Your task to perform on an android device: clear all cookies in the chrome app Image 0: 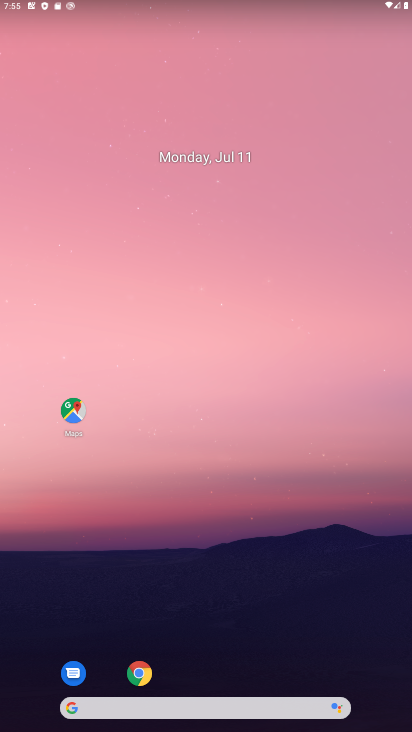
Step 0: press home button
Your task to perform on an android device: clear all cookies in the chrome app Image 1: 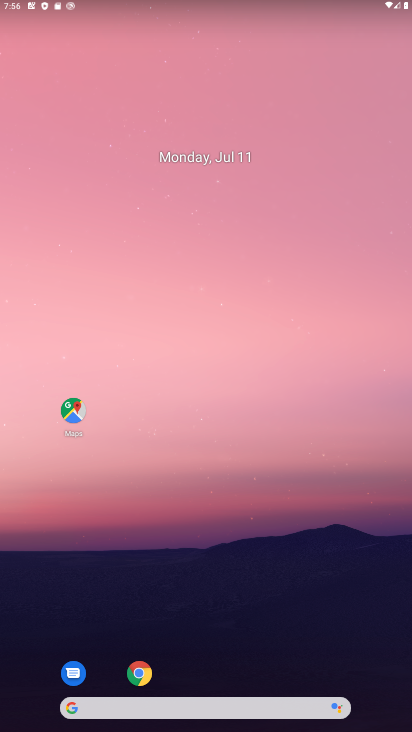
Step 1: click (138, 670)
Your task to perform on an android device: clear all cookies in the chrome app Image 2: 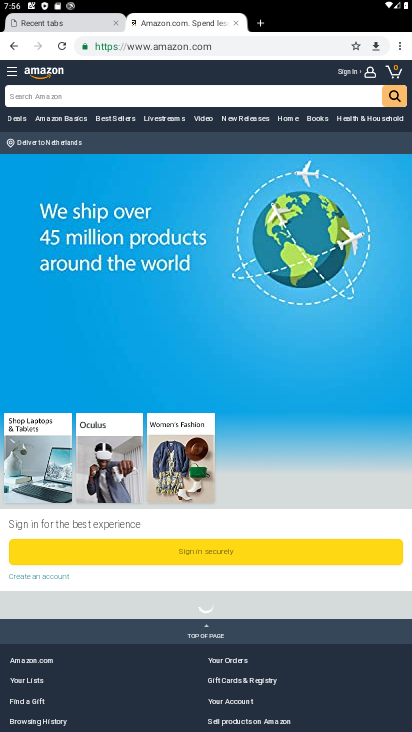
Step 2: click (398, 45)
Your task to perform on an android device: clear all cookies in the chrome app Image 3: 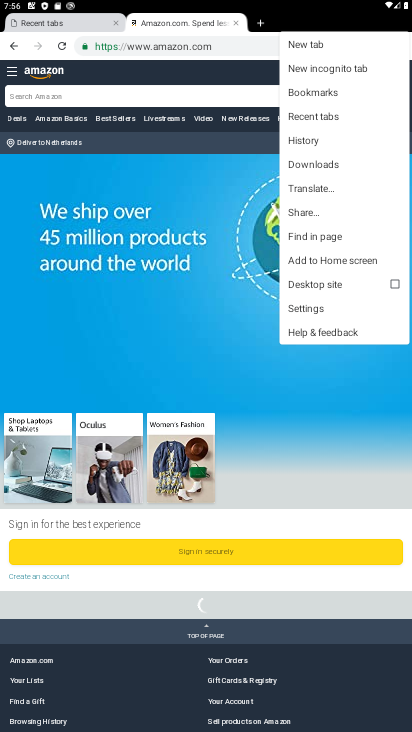
Step 3: click (327, 141)
Your task to perform on an android device: clear all cookies in the chrome app Image 4: 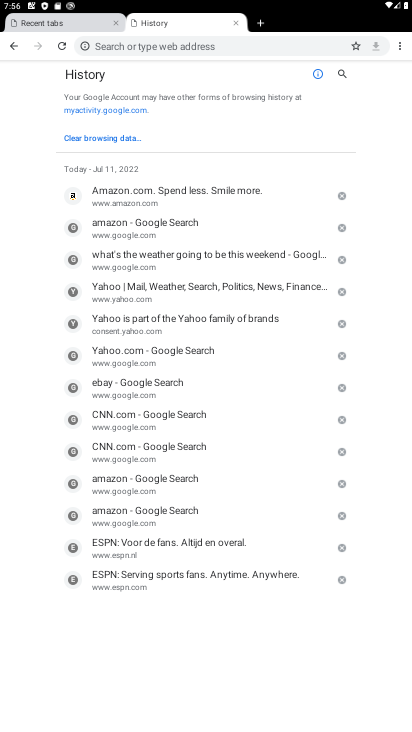
Step 4: click (107, 137)
Your task to perform on an android device: clear all cookies in the chrome app Image 5: 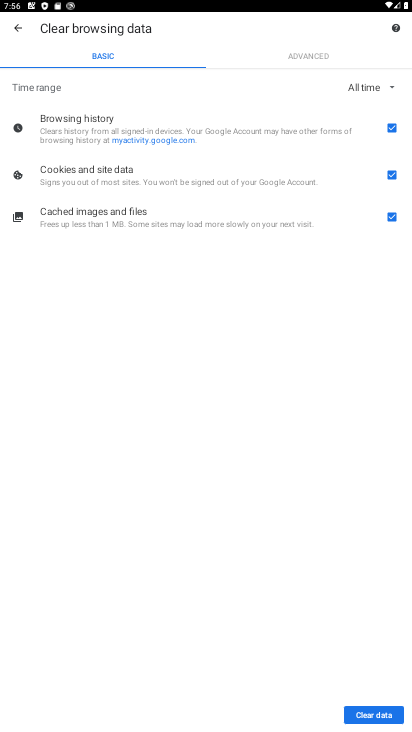
Step 5: click (392, 125)
Your task to perform on an android device: clear all cookies in the chrome app Image 6: 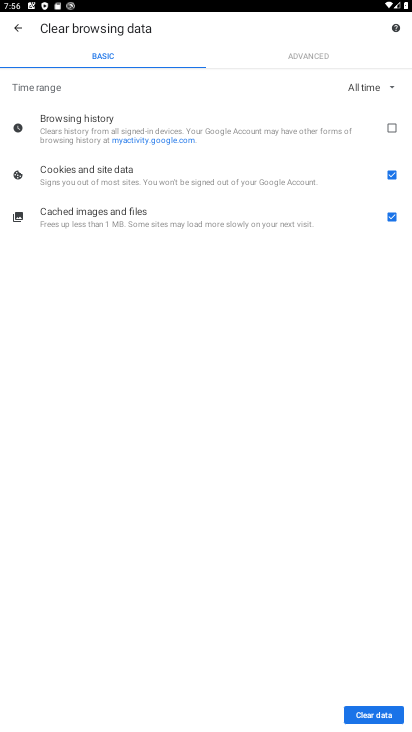
Step 6: click (389, 211)
Your task to perform on an android device: clear all cookies in the chrome app Image 7: 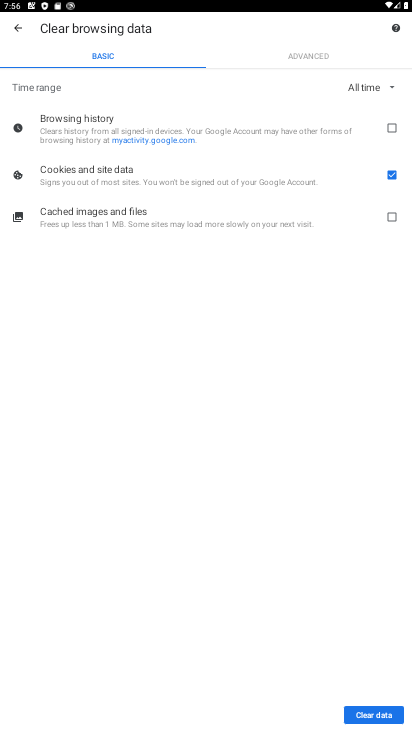
Step 7: click (375, 717)
Your task to perform on an android device: clear all cookies in the chrome app Image 8: 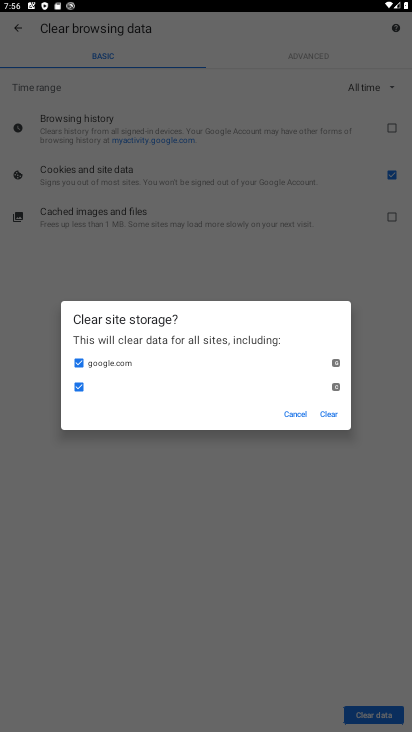
Step 8: click (332, 416)
Your task to perform on an android device: clear all cookies in the chrome app Image 9: 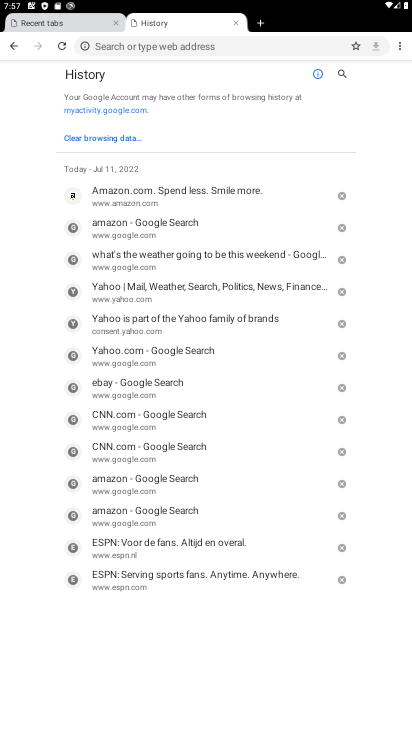
Step 9: task complete